Your task to perform on an android device: Open the phone app and click the voicemail tab. Image 0: 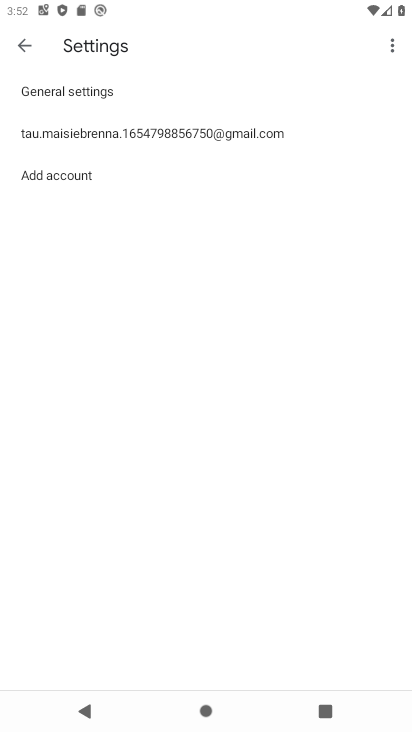
Step 0: press home button
Your task to perform on an android device: Open the phone app and click the voicemail tab. Image 1: 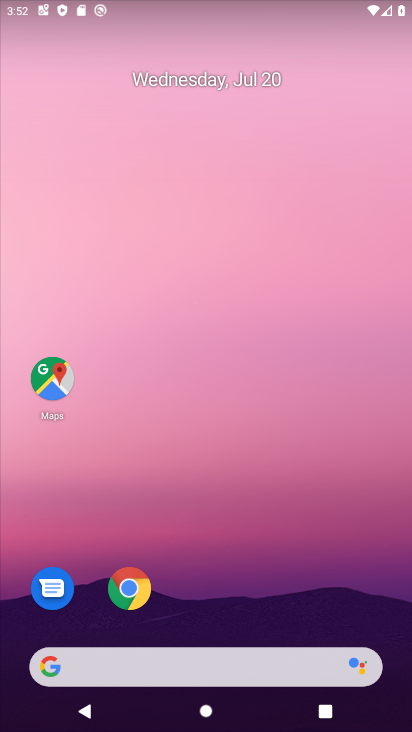
Step 1: drag from (307, 571) to (312, 69)
Your task to perform on an android device: Open the phone app and click the voicemail tab. Image 2: 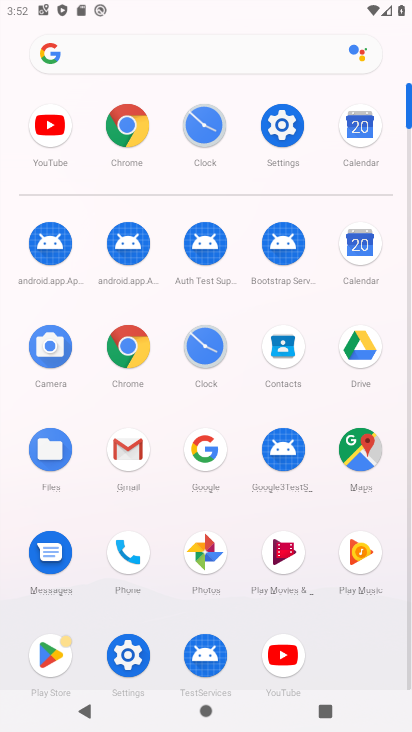
Step 2: click (125, 555)
Your task to perform on an android device: Open the phone app and click the voicemail tab. Image 3: 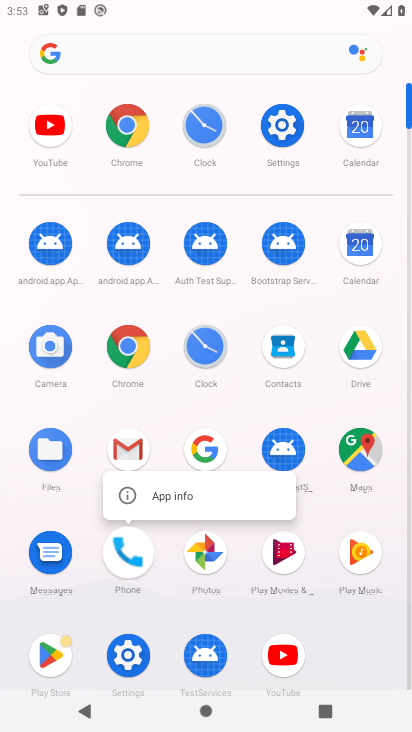
Step 3: click (125, 555)
Your task to perform on an android device: Open the phone app and click the voicemail tab. Image 4: 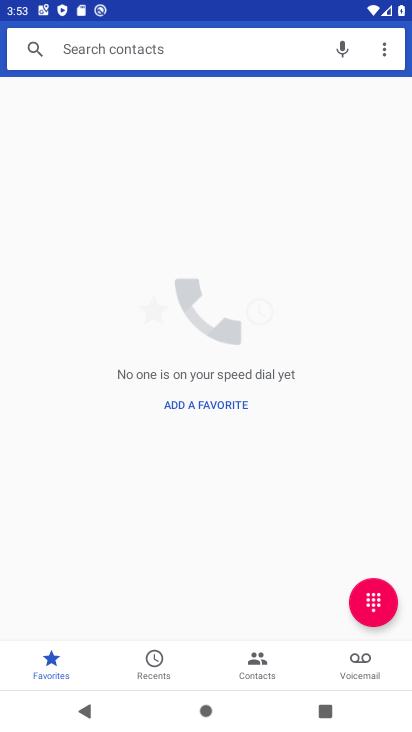
Step 4: click (358, 659)
Your task to perform on an android device: Open the phone app and click the voicemail tab. Image 5: 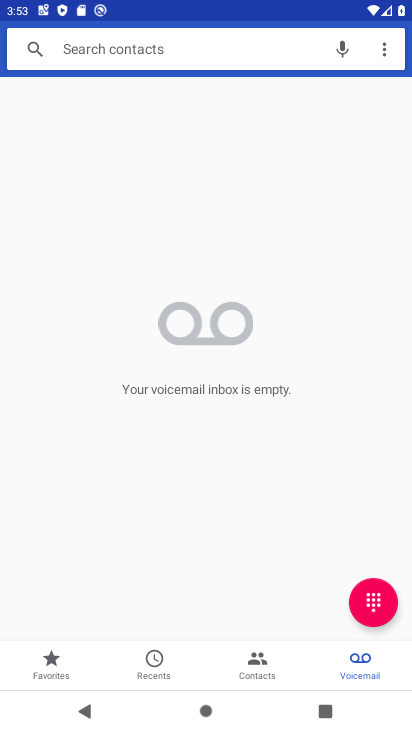
Step 5: task complete